Your task to perform on an android device: Go to eBay Image 0: 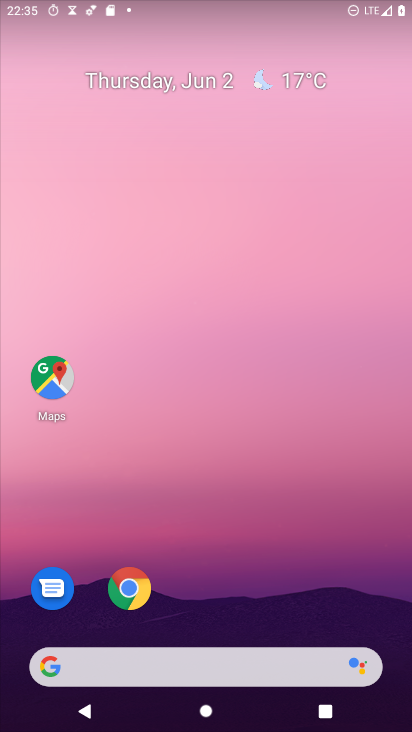
Step 0: click (133, 590)
Your task to perform on an android device: Go to eBay Image 1: 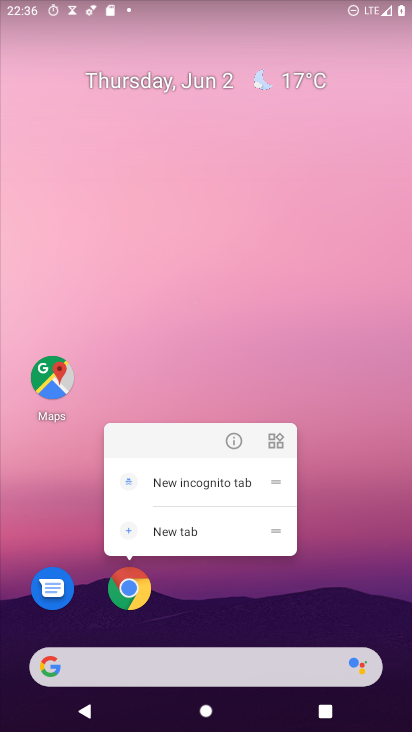
Step 1: click (131, 601)
Your task to perform on an android device: Go to eBay Image 2: 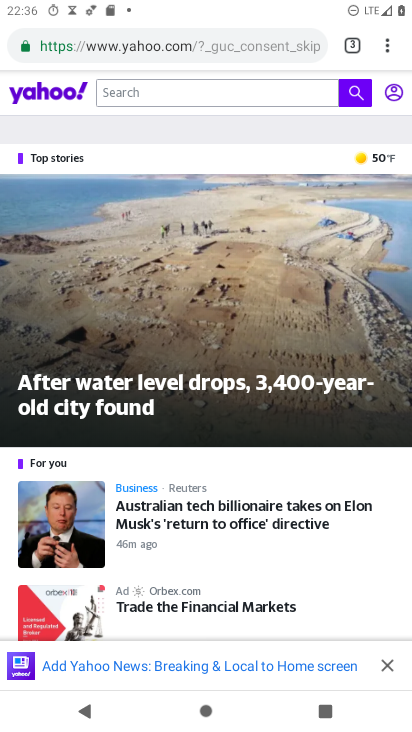
Step 2: click (346, 44)
Your task to perform on an android device: Go to eBay Image 3: 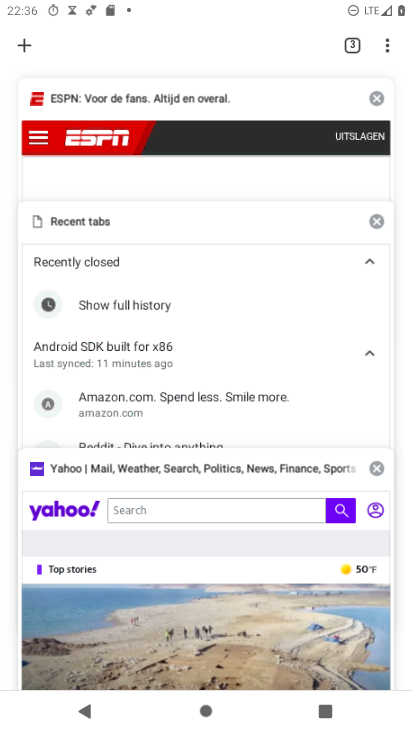
Step 3: click (28, 39)
Your task to perform on an android device: Go to eBay Image 4: 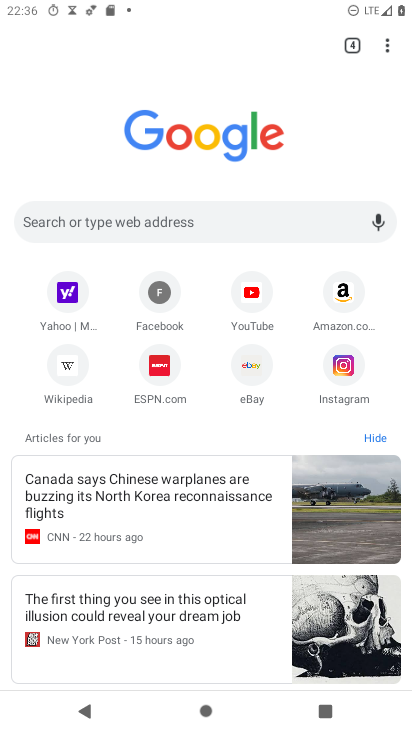
Step 4: click (244, 367)
Your task to perform on an android device: Go to eBay Image 5: 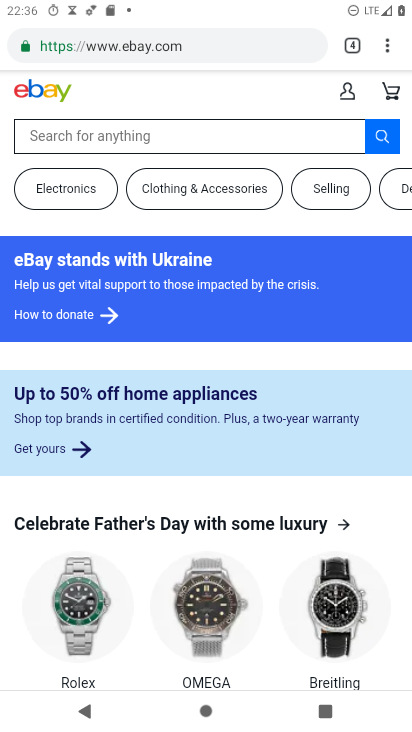
Step 5: task complete